Your task to perform on an android device: Search for rayovac triple a on costco, select the first entry, add it to the cart, then select checkout. Image 0: 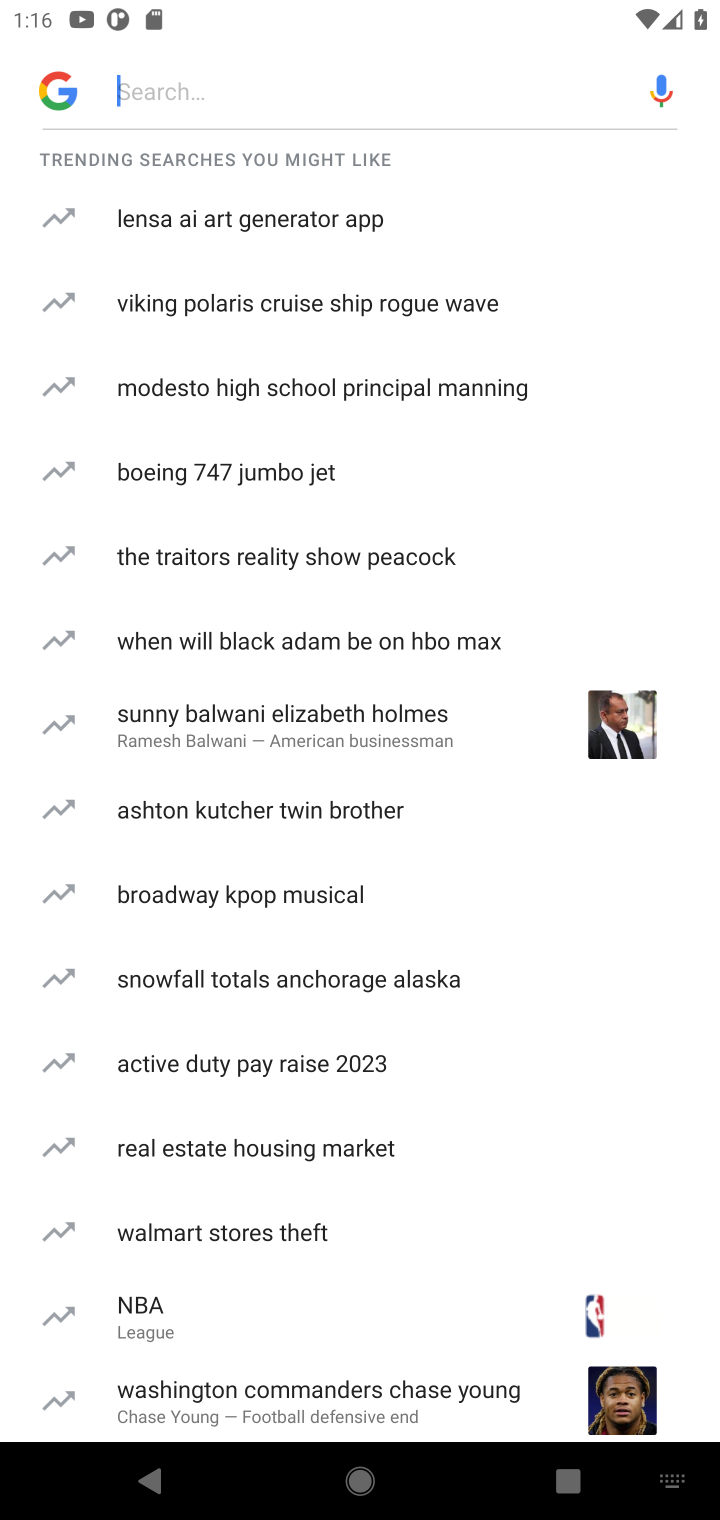
Step 0: type "costco"
Your task to perform on an android device: Search for rayovac triple a on costco, select the first entry, add it to the cart, then select checkout. Image 1: 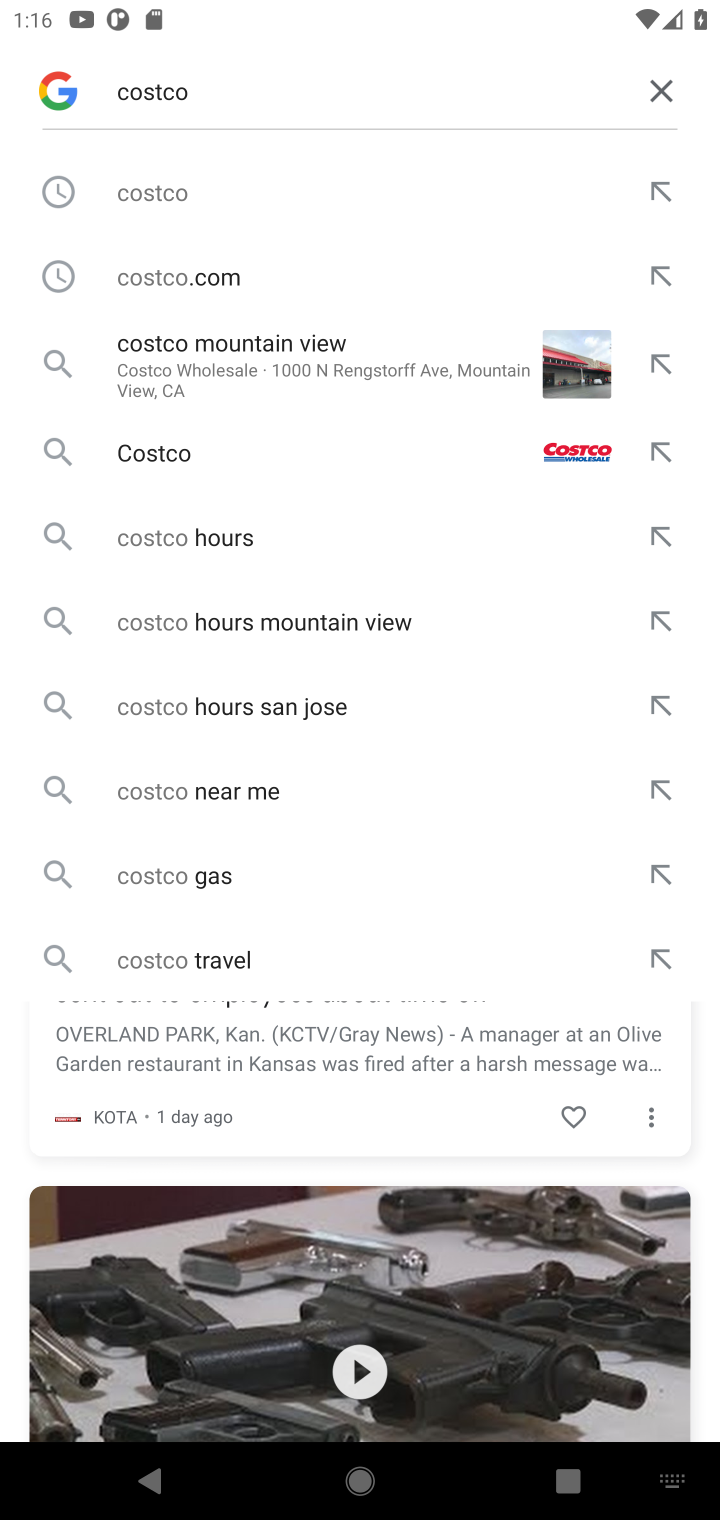
Step 1: click (200, 281)
Your task to perform on an android device: Search for rayovac triple a on costco, select the first entry, add it to the cart, then select checkout. Image 2: 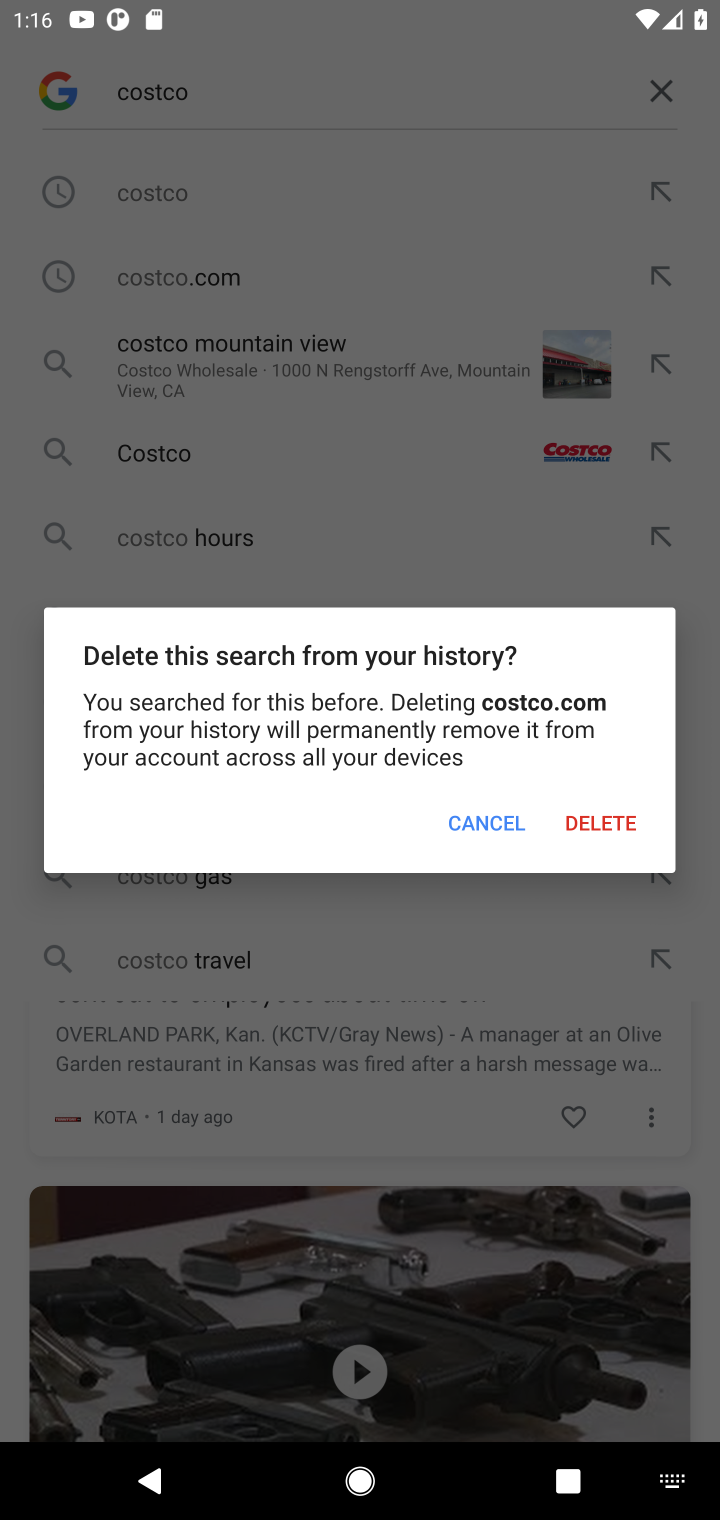
Step 2: click (509, 830)
Your task to perform on an android device: Search for rayovac triple a on costco, select the first entry, add it to the cart, then select checkout. Image 3: 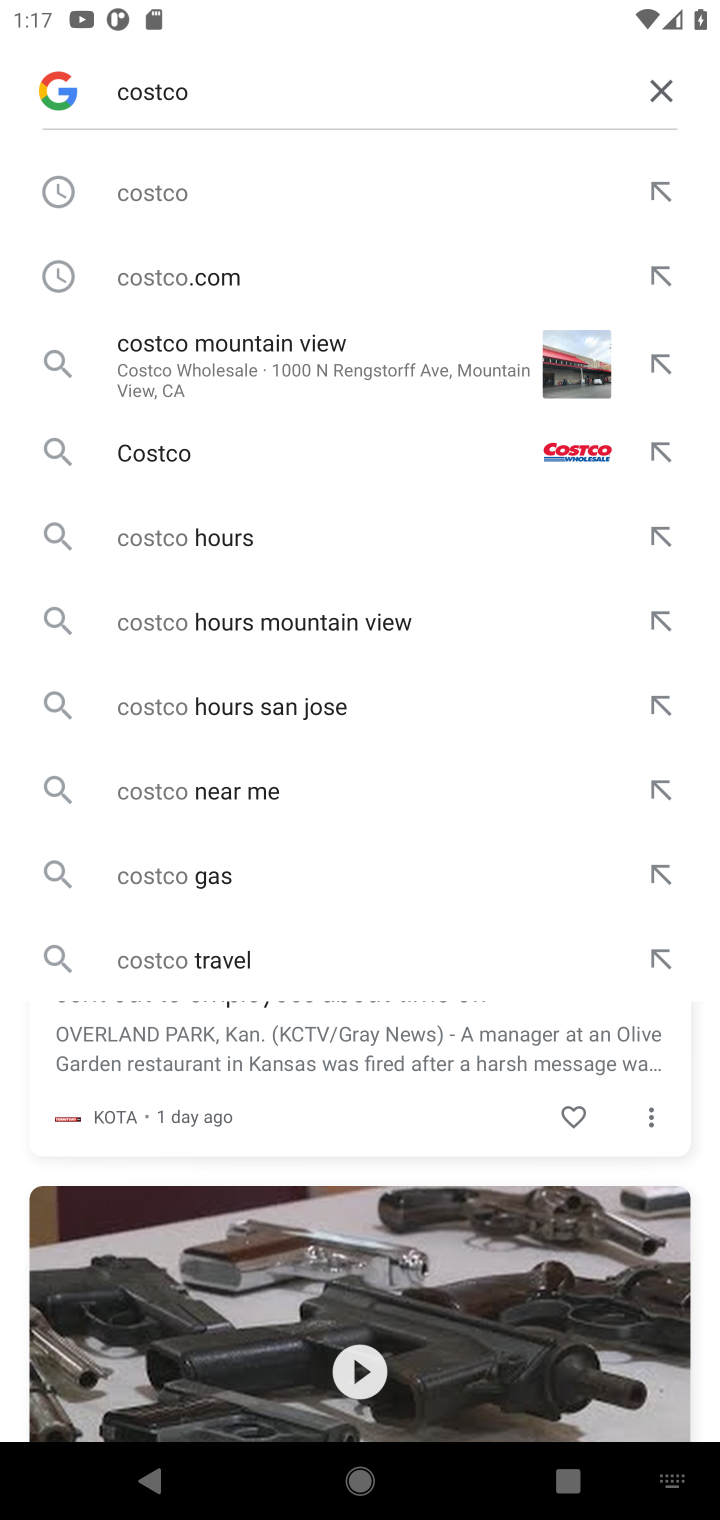
Step 3: press enter
Your task to perform on an android device: Search for rayovac triple a on costco, select the first entry, add it to the cart, then select checkout. Image 4: 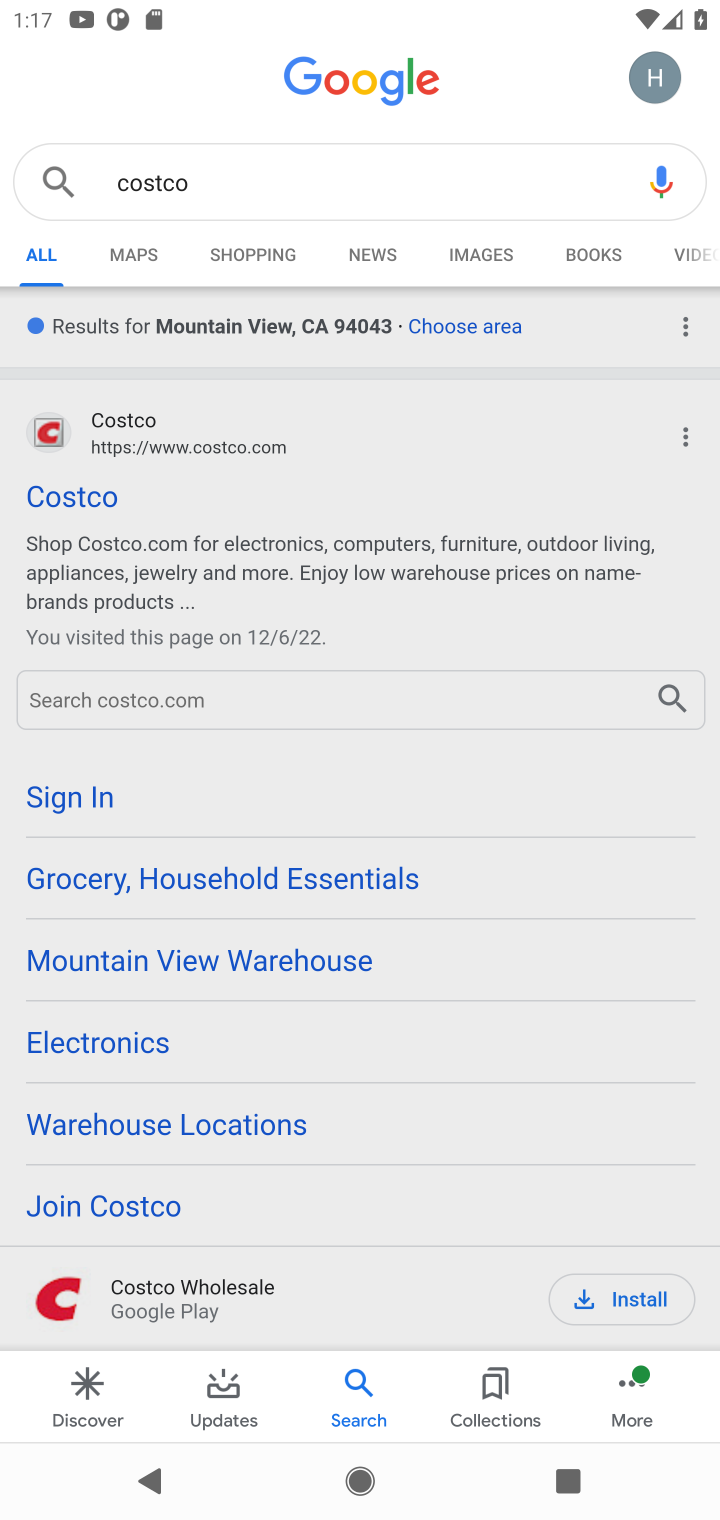
Step 4: click (79, 497)
Your task to perform on an android device: Search for rayovac triple a on costco, select the first entry, add it to the cart, then select checkout. Image 5: 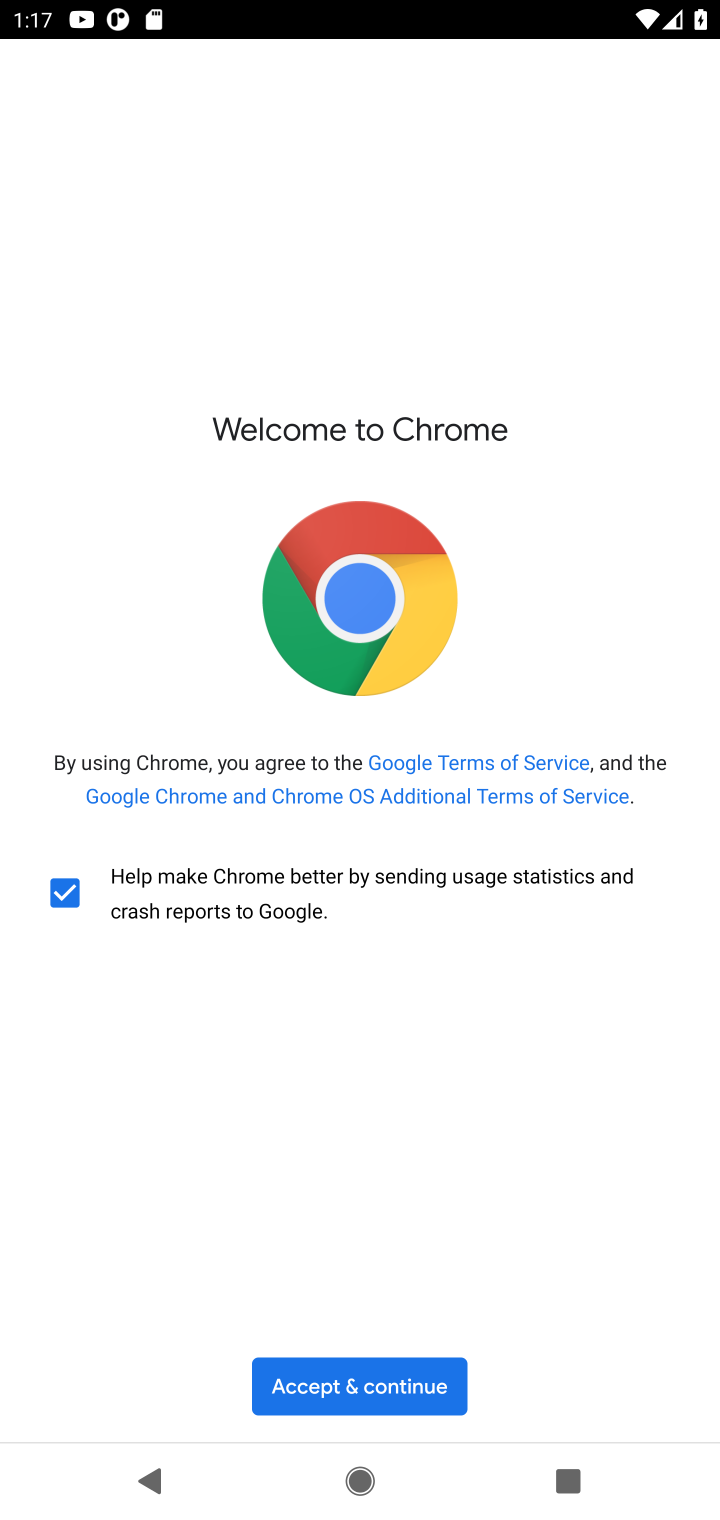
Step 5: click (381, 1378)
Your task to perform on an android device: Search for rayovac triple a on costco, select the first entry, add it to the cart, then select checkout. Image 6: 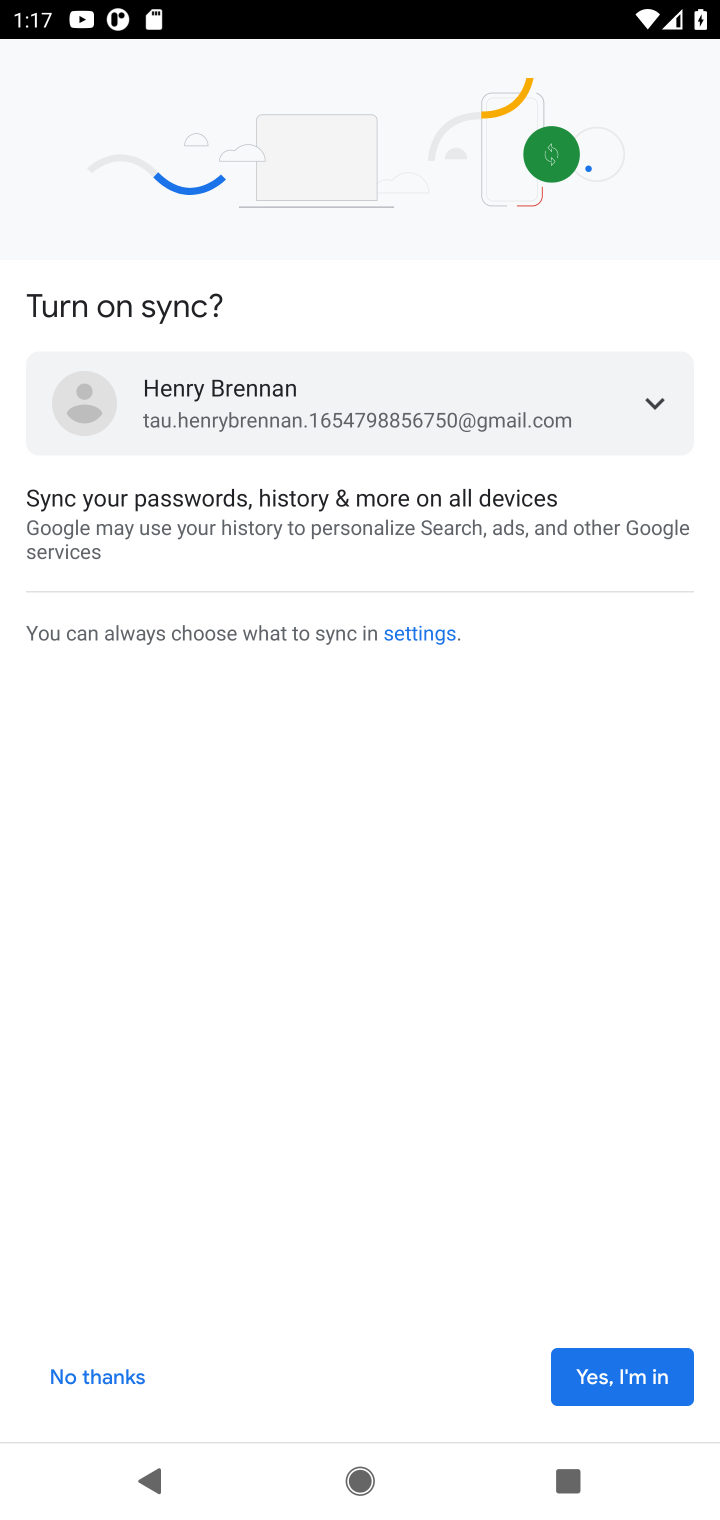
Step 6: click (629, 1393)
Your task to perform on an android device: Search for rayovac triple a on costco, select the first entry, add it to the cart, then select checkout. Image 7: 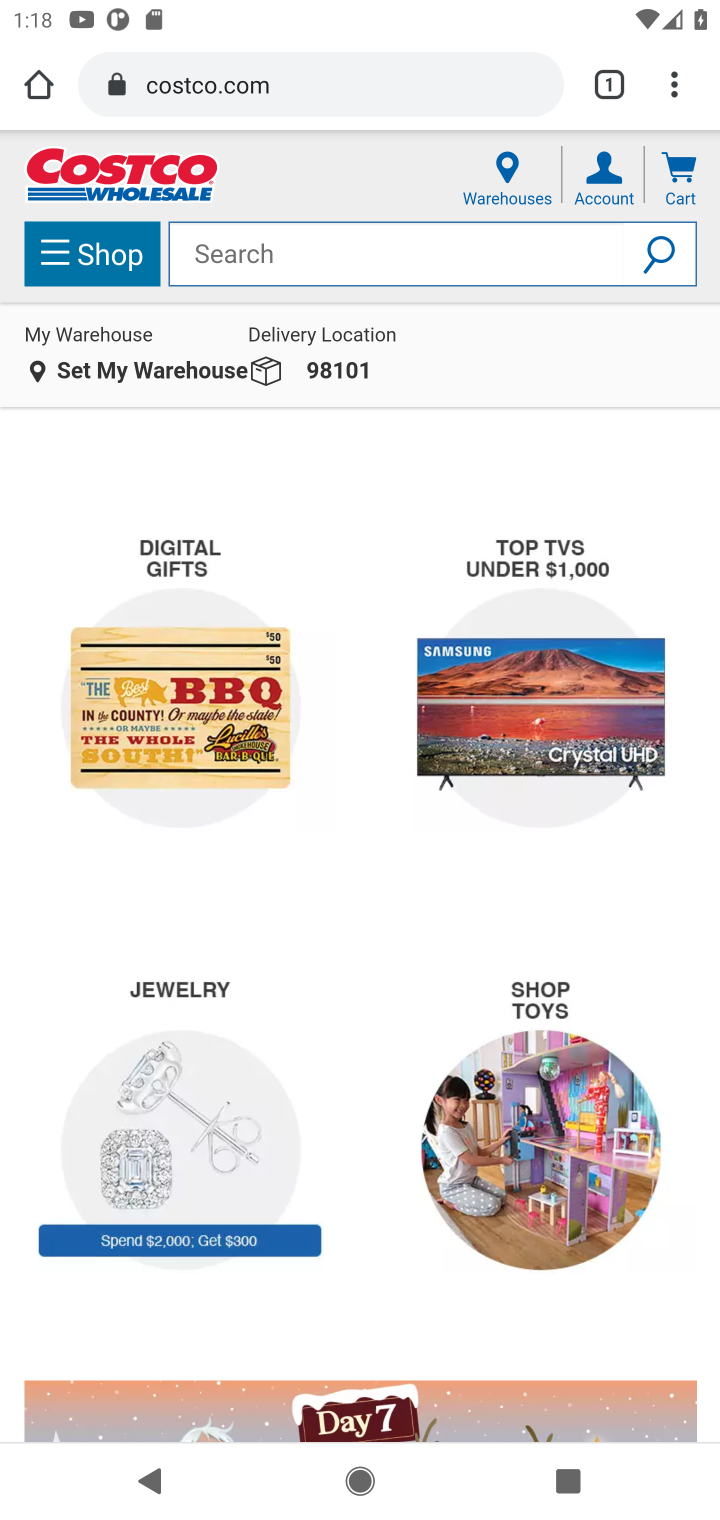
Step 7: click (269, 251)
Your task to perform on an android device: Search for rayovac triple a on costco, select the first entry, add it to the cart, then select checkout. Image 8: 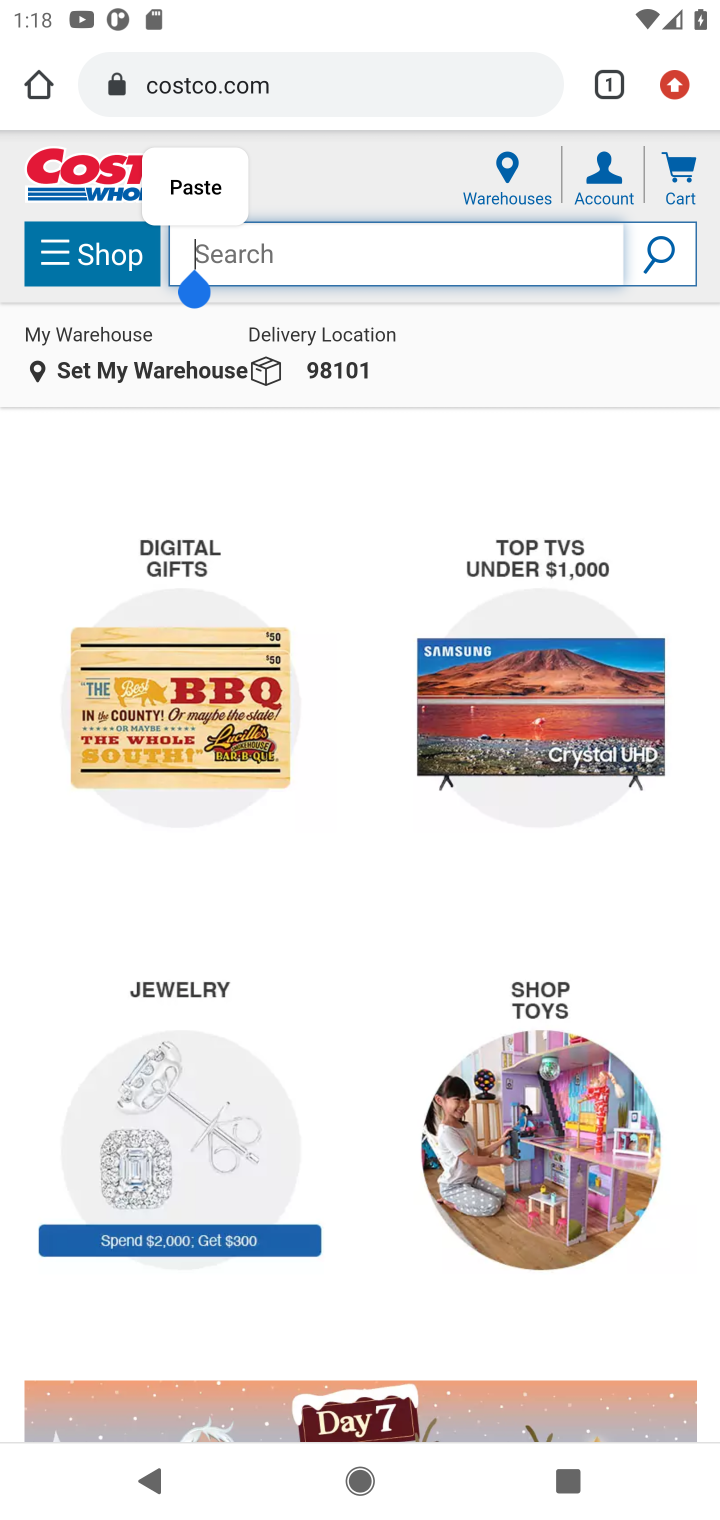
Step 8: type "rayovac triple a"
Your task to perform on an android device: Search for rayovac triple a on costco, select the first entry, add it to the cart, then select checkout. Image 9: 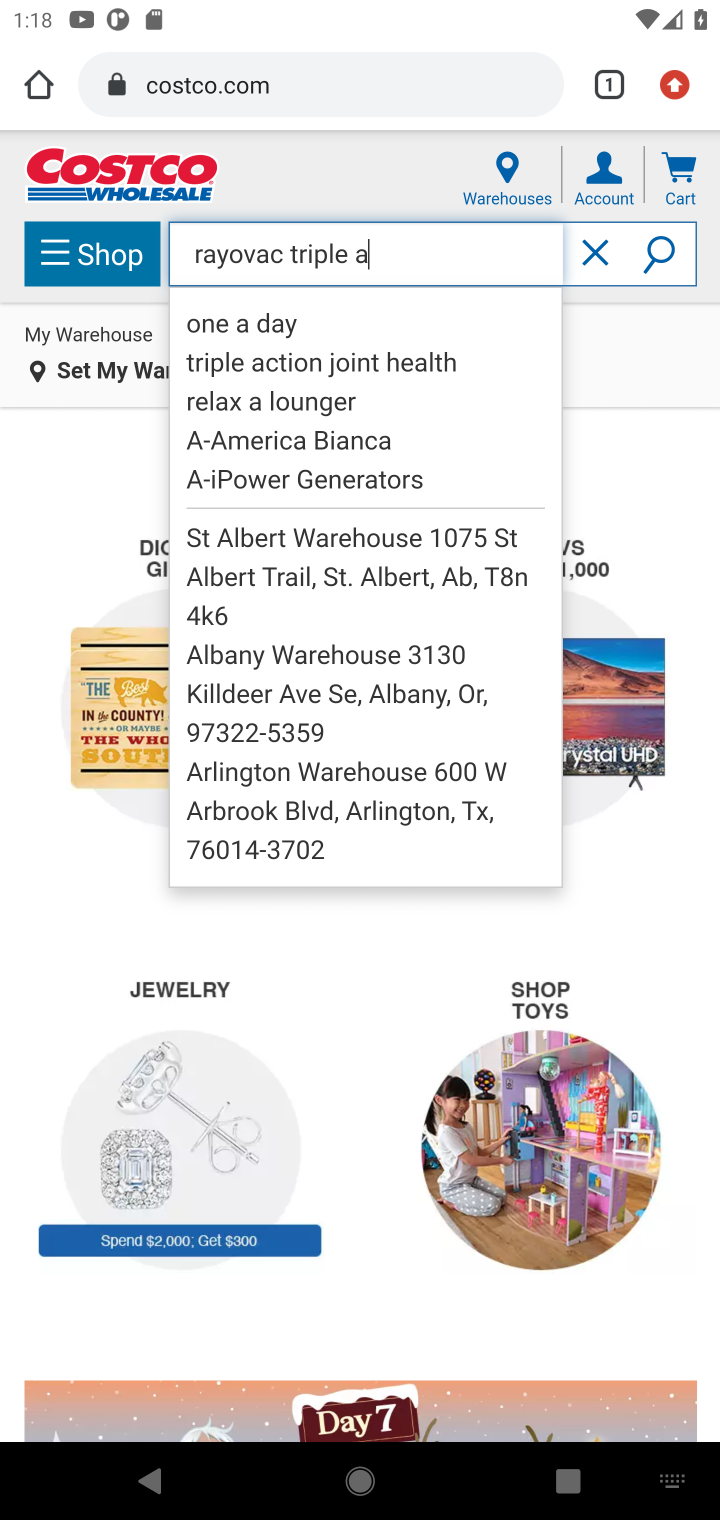
Step 9: press enter
Your task to perform on an android device: Search for rayovac triple a on costco, select the first entry, add it to the cart, then select checkout. Image 10: 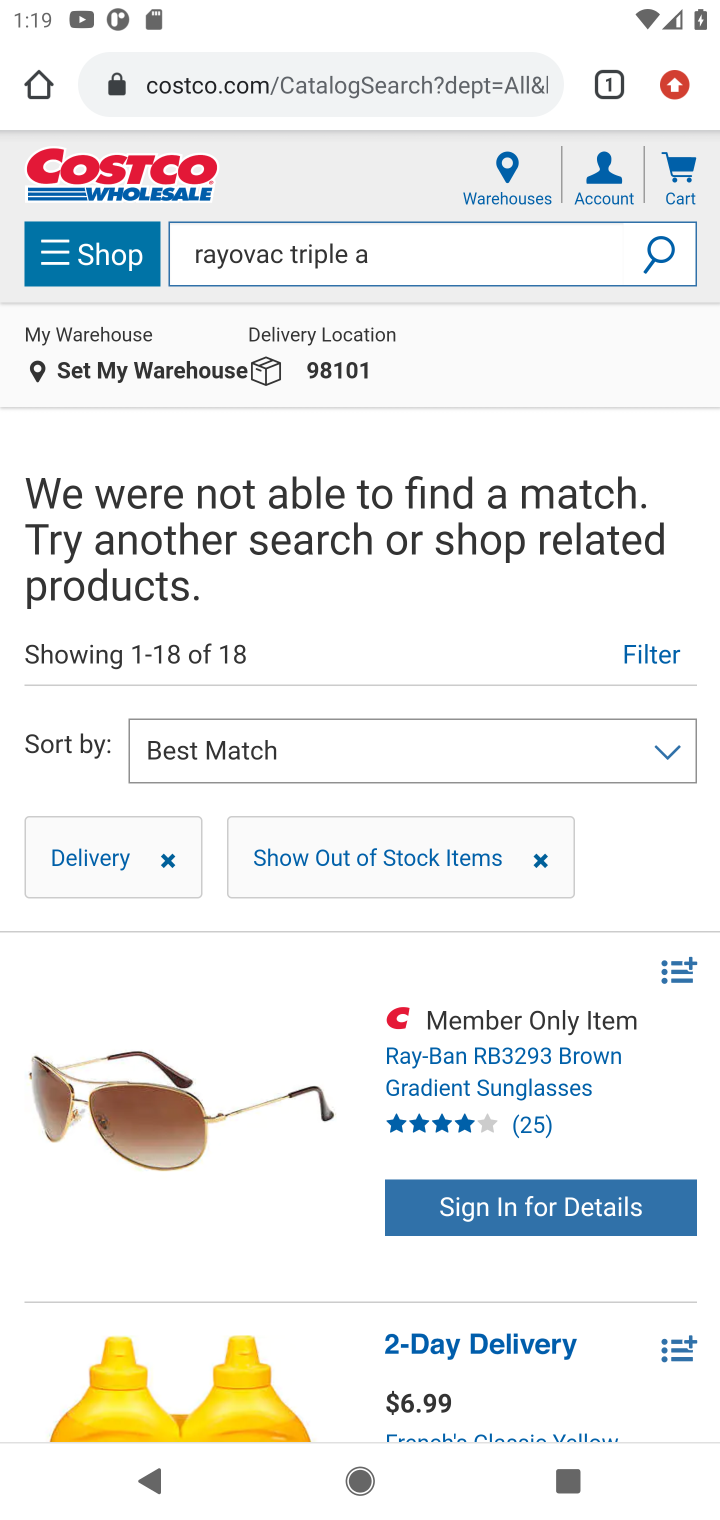
Step 10: task complete